Your task to perform on an android device: check data usage Image 0: 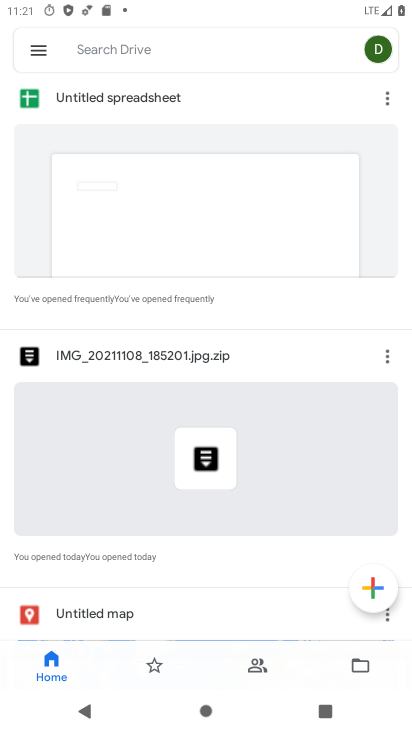
Step 0: press home button
Your task to perform on an android device: check data usage Image 1: 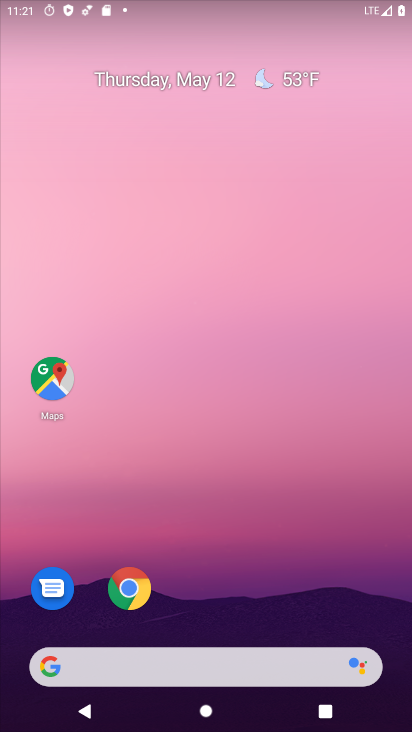
Step 1: drag from (254, 585) to (283, 121)
Your task to perform on an android device: check data usage Image 2: 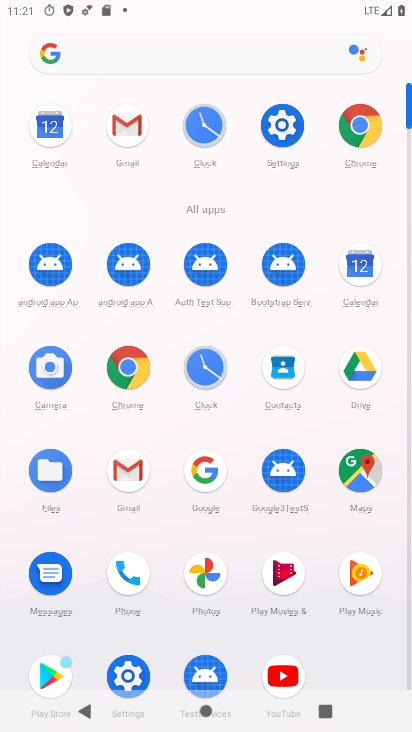
Step 2: click (279, 146)
Your task to perform on an android device: check data usage Image 3: 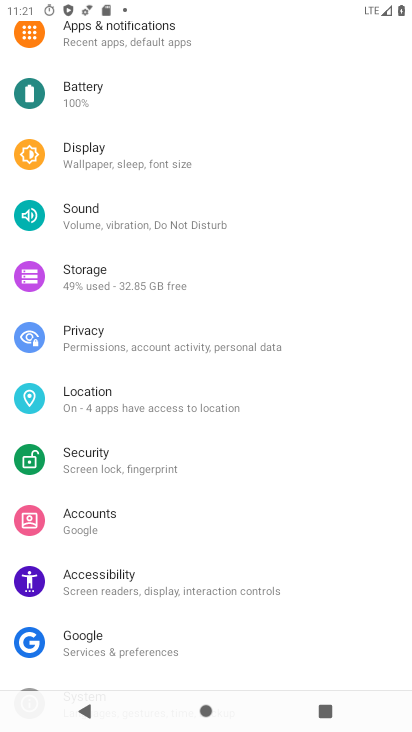
Step 3: drag from (162, 566) to (207, 711)
Your task to perform on an android device: check data usage Image 4: 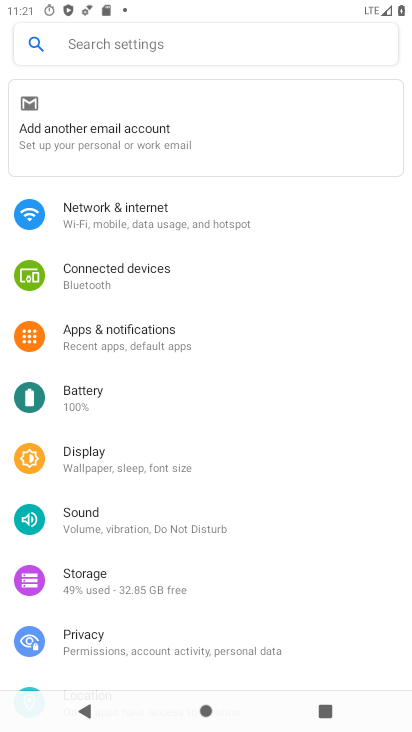
Step 4: click (167, 219)
Your task to perform on an android device: check data usage Image 5: 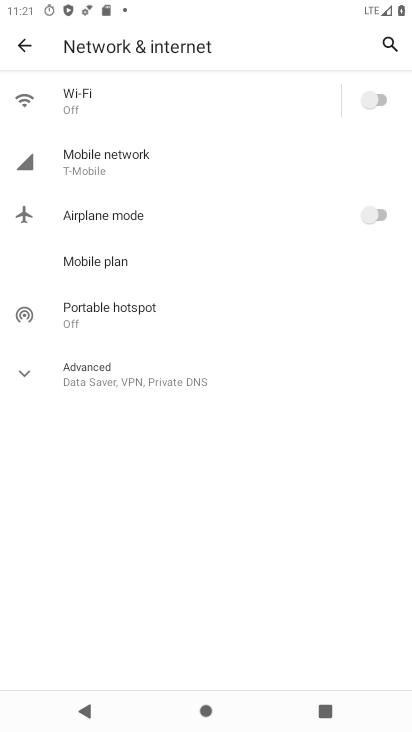
Step 5: click (145, 154)
Your task to perform on an android device: check data usage Image 6: 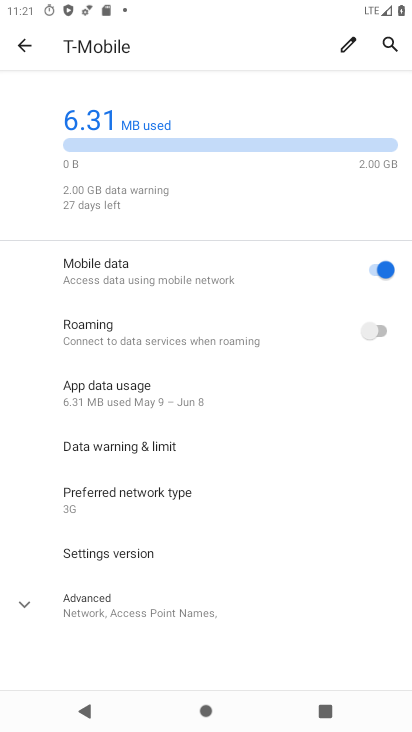
Step 6: task complete